Your task to perform on an android device: Go to Google maps Image 0: 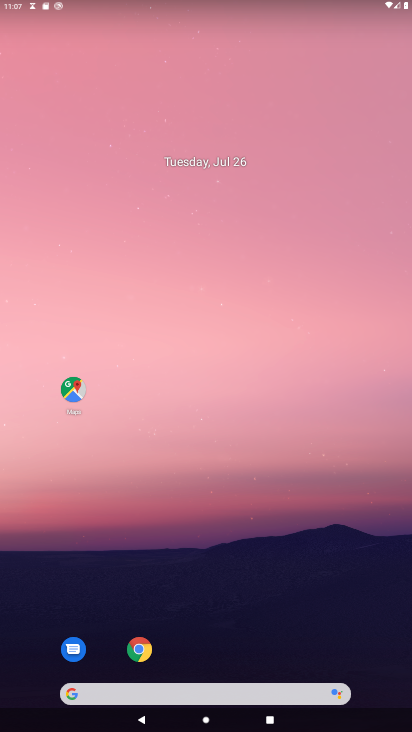
Step 0: click (72, 383)
Your task to perform on an android device: Go to Google maps Image 1: 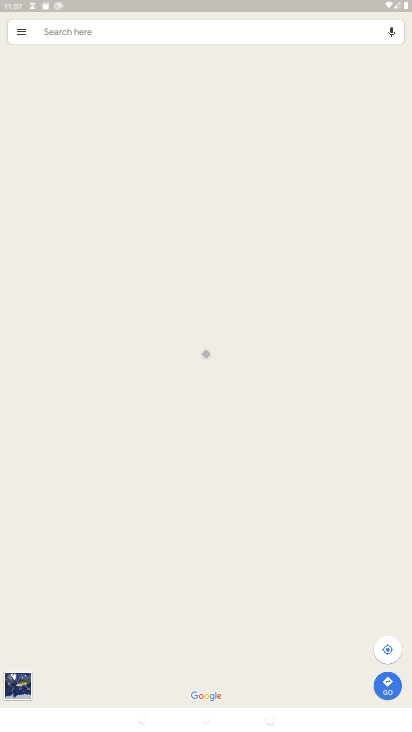
Step 1: task complete